Your task to perform on an android device: toggle location history Image 0: 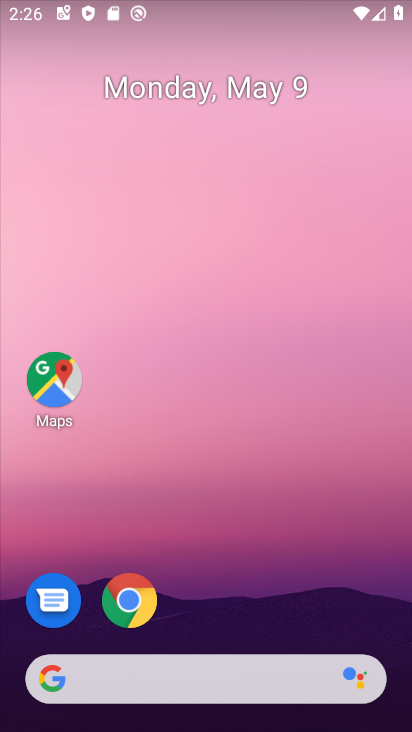
Step 0: drag from (199, 588) to (277, 51)
Your task to perform on an android device: toggle location history Image 1: 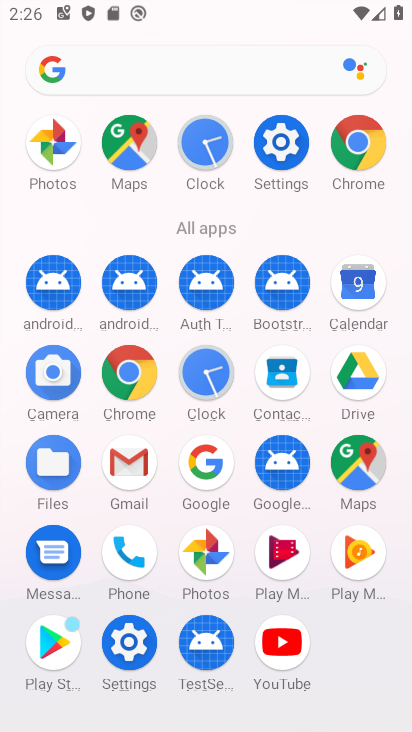
Step 1: click (282, 135)
Your task to perform on an android device: toggle location history Image 2: 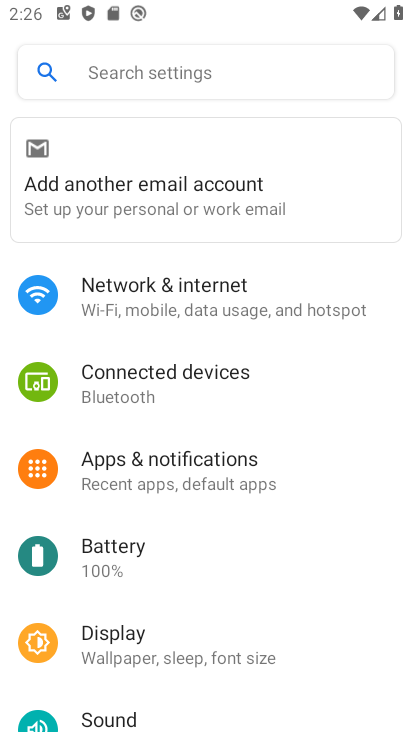
Step 2: drag from (152, 664) to (269, 240)
Your task to perform on an android device: toggle location history Image 3: 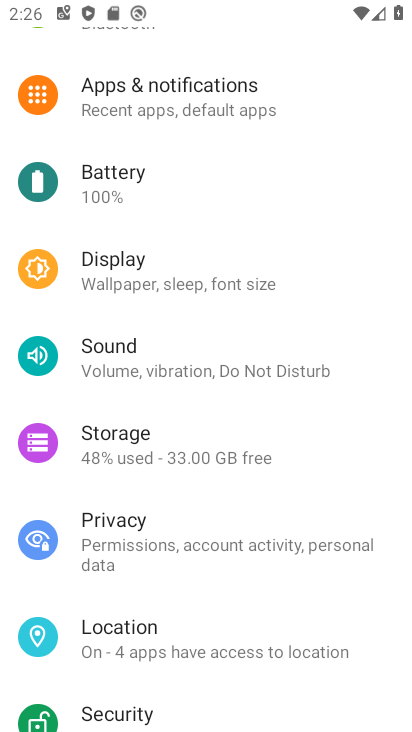
Step 3: click (161, 617)
Your task to perform on an android device: toggle location history Image 4: 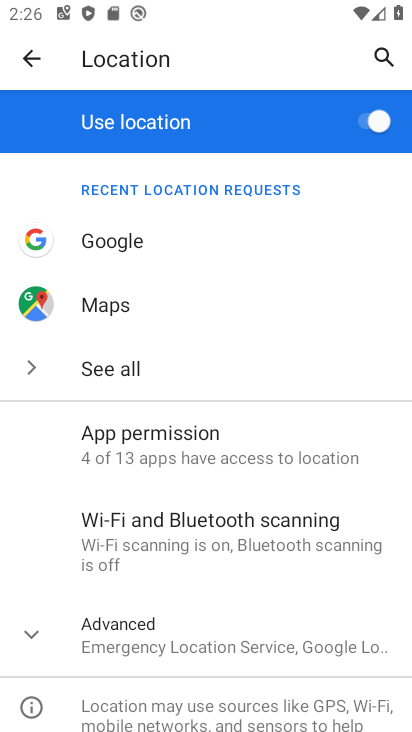
Step 4: click (212, 630)
Your task to perform on an android device: toggle location history Image 5: 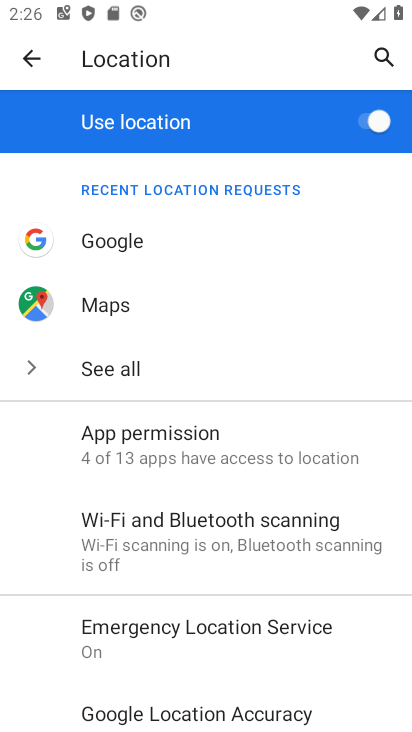
Step 5: drag from (201, 691) to (264, 426)
Your task to perform on an android device: toggle location history Image 6: 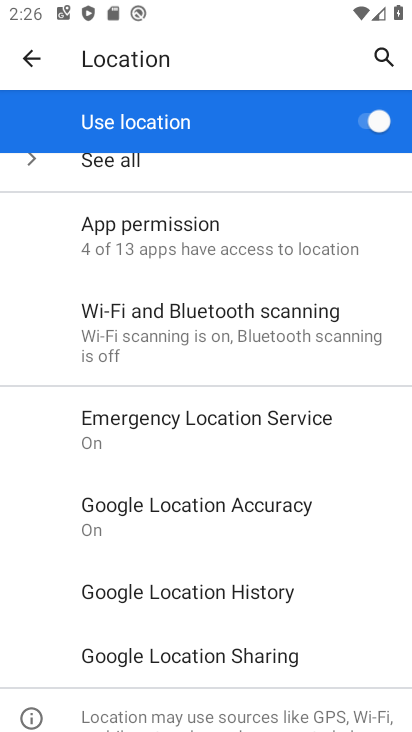
Step 6: click (176, 586)
Your task to perform on an android device: toggle location history Image 7: 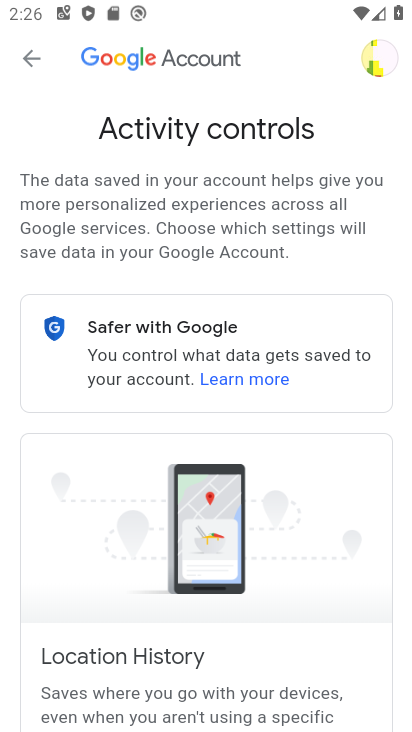
Step 7: drag from (190, 604) to (294, 120)
Your task to perform on an android device: toggle location history Image 8: 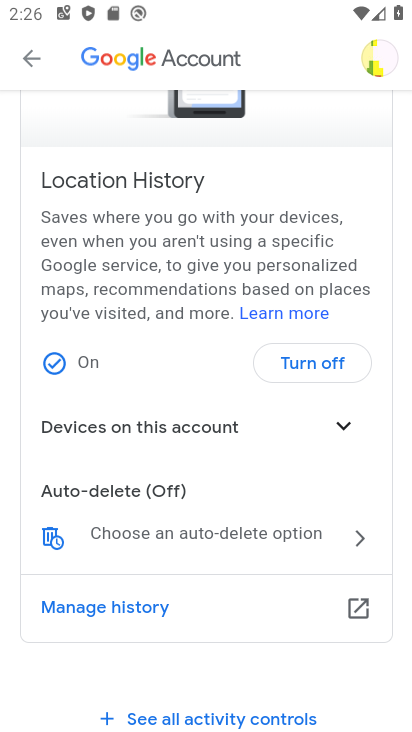
Step 8: click (301, 369)
Your task to perform on an android device: toggle location history Image 9: 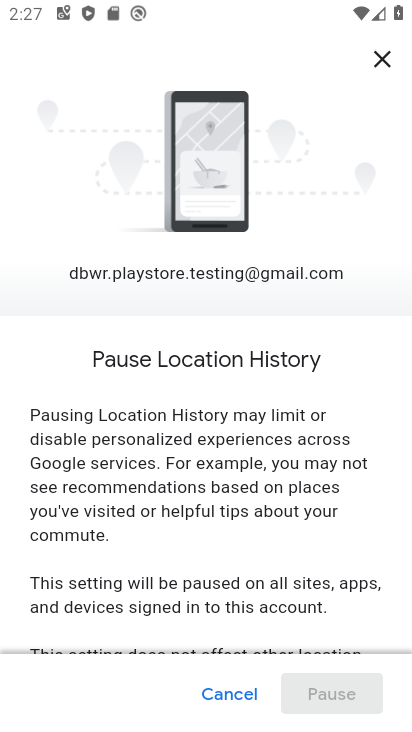
Step 9: drag from (245, 608) to (283, 86)
Your task to perform on an android device: toggle location history Image 10: 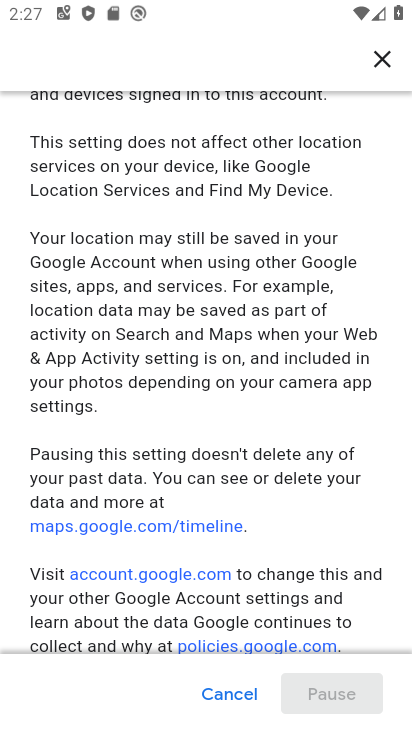
Step 10: drag from (241, 579) to (297, 56)
Your task to perform on an android device: toggle location history Image 11: 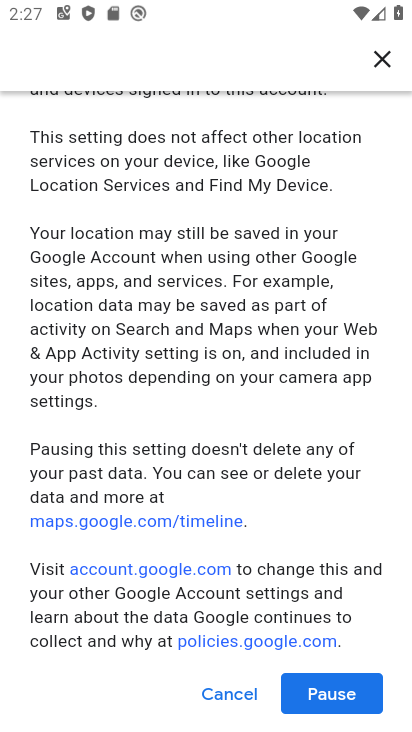
Step 11: click (324, 701)
Your task to perform on an android device: toggle location history Image 12: 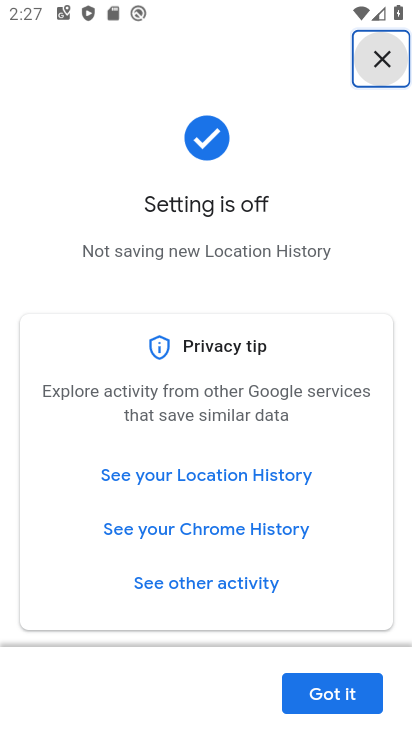
Step 12: task complete